Your task to perform on an android device: turn on showing notifications on the lock screen Image 0: 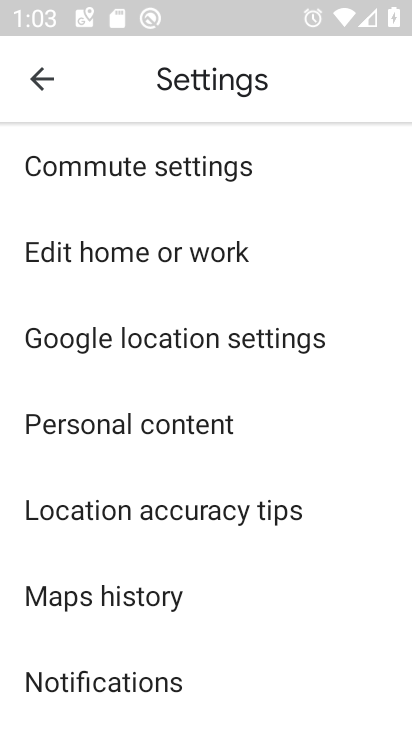
Step 0: press home button
Your task to perform on an android device: turn on showing notifications on the lock screen Image 1: 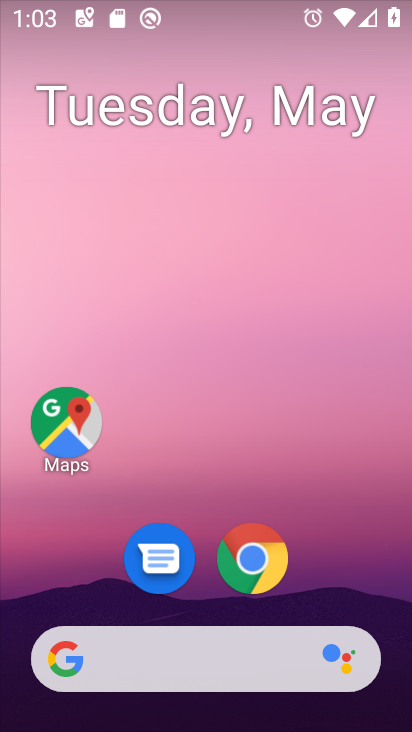
Step 1: drag from (327, 587) to (233, 153)
Your task to perform on an android device: turn on showing notifications on the lock screen Image 2: 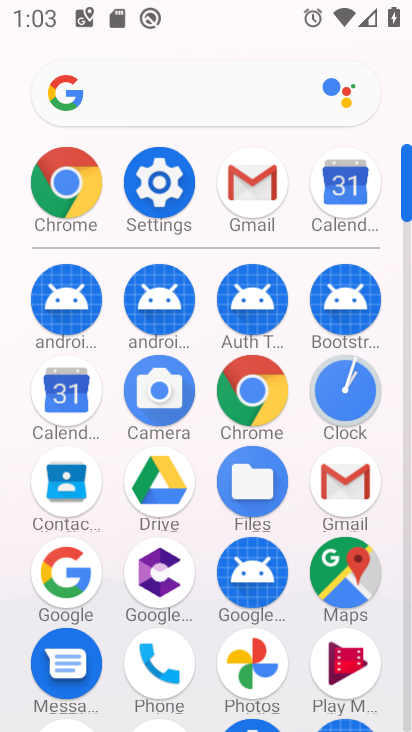
Step 2: click (167, 175)
Your task to perform on an android device: turn on showing notifications on the lock screen Image 3: 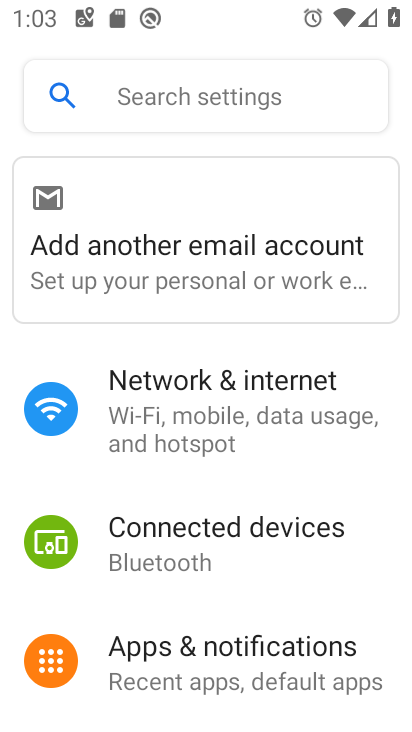
Step 3: drag from (255, 673) to (228, 409)
Your task to perform on an android device: turn on showing notifications on the lock screen Image 4: 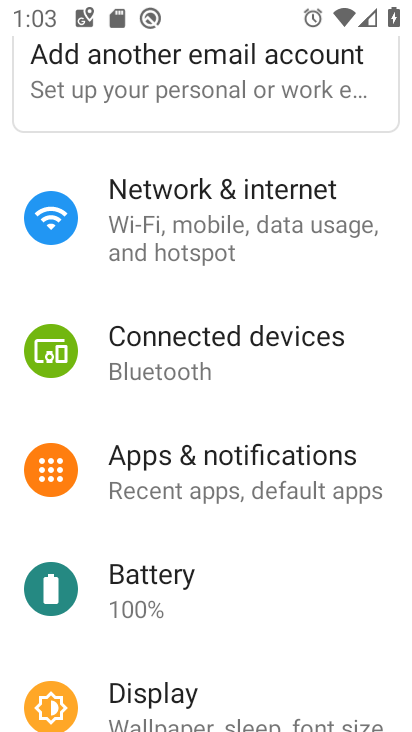
Step 4: click (249, 457)
Your task to perform on an android device: turn on showing notifications on the lock screen Image 5: 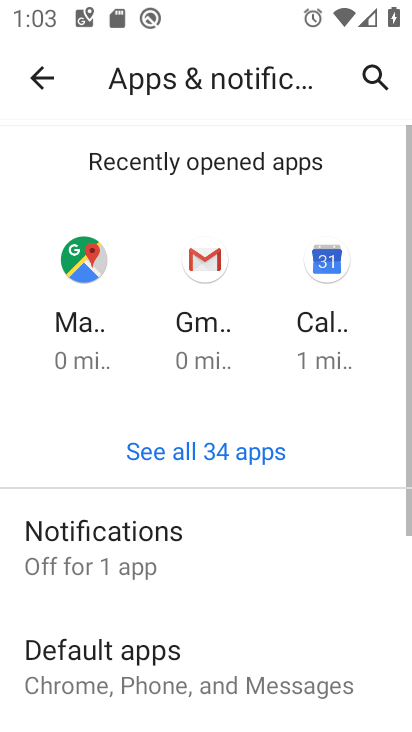
Step 5: drag from (264, 647) to (225, 268)
Your task to perform on an android device: turn on showing notifications on the lock screen Image 6: 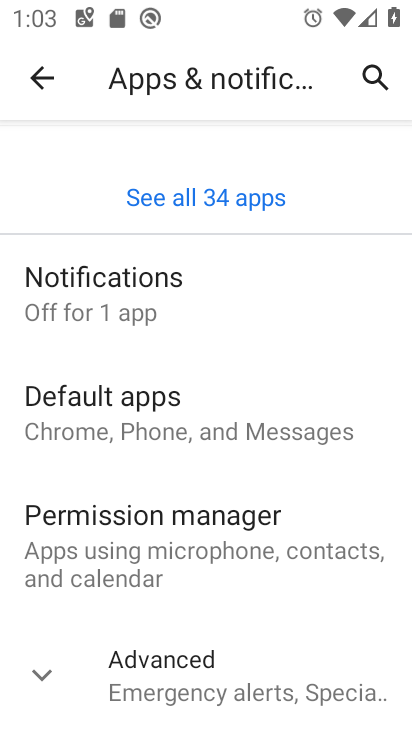
Step 6: click (226, 286)
Your task to perform on an android device: turn on showing notifications on the lock screen Image 7: 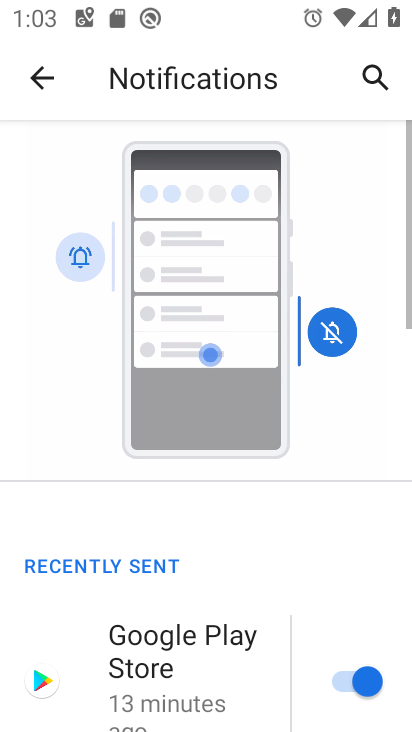
Step 7: drag from (241, 637) to (221, 202)
Your task to perform on an android device: turn on showing notifications on the lock screen Image 8: 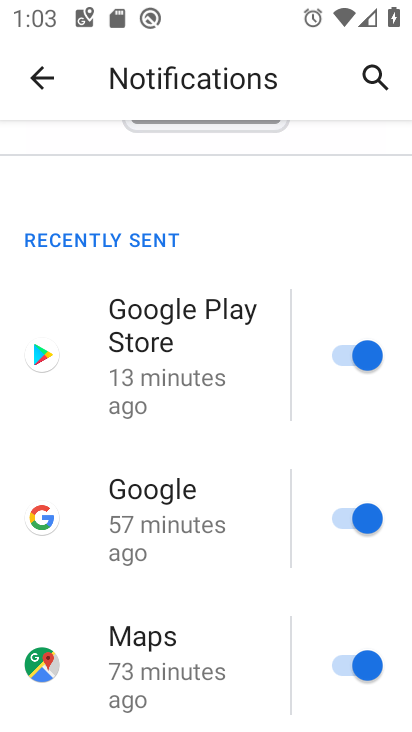
Step 8: drag from (240, 711) to (239, 273)
Your task to perform on an android device: turn on showing notifications on the lock screen Image 9: 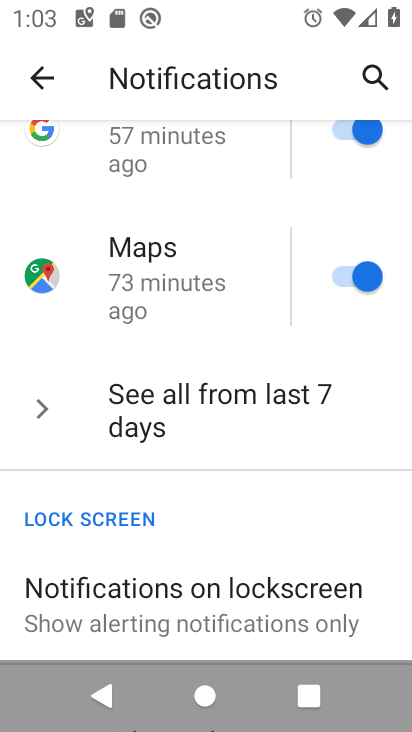
Step 9: drag from (267, 585) to (237, 308)
Your task to perform on an android device: turn on showing notifications on the lock screen Image 10: 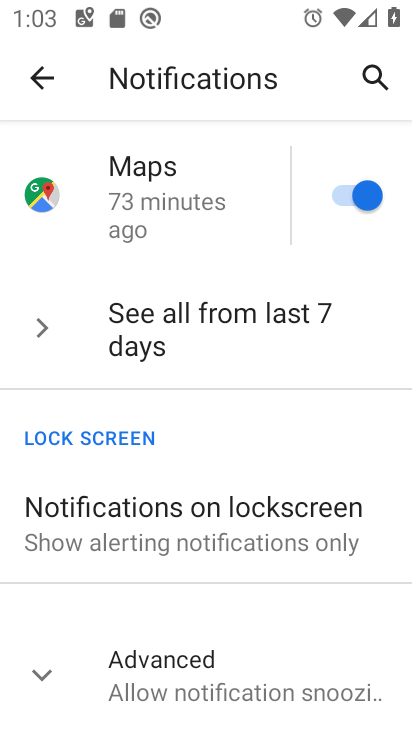
Step 10: click (265, 498)
Your task to perform on an android device: turn on showing notifications on the lock screen Image 11: 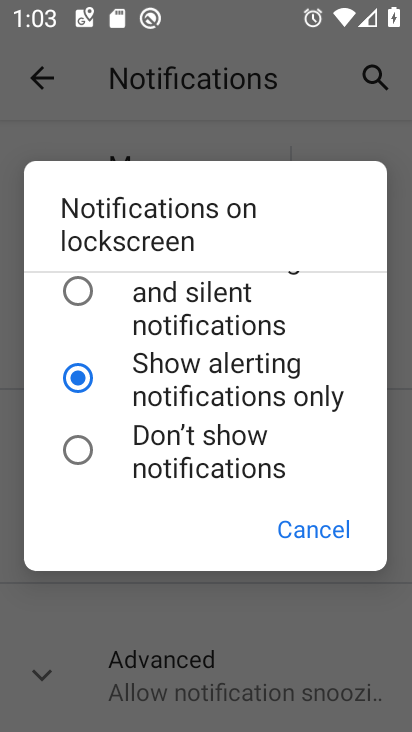
Step 11: click (201, 298)
Your task to perform on an android device: turn on showing notifications on the lock screen Image 12: 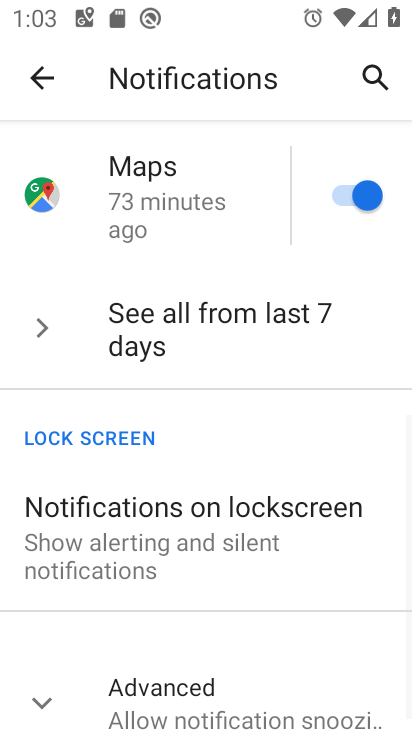
Step 12: task complete